Your task to perform on an android device: delete browsing data in the chrome app Image 0: 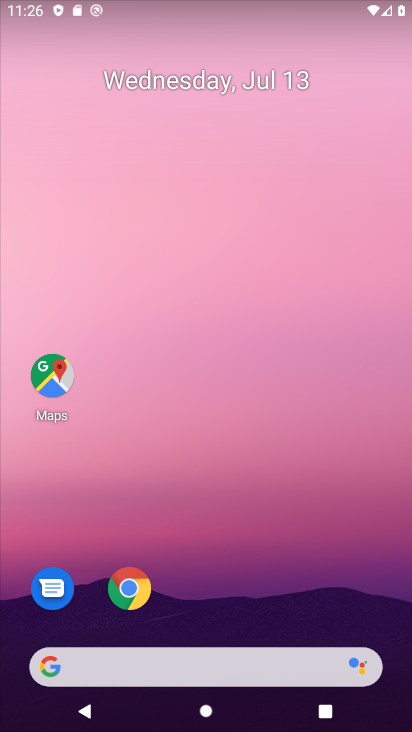
Step 0: drag from (220, 616) to (272, 65)
Your task to perform on an android device: delete browsing data in the chrome app Image 1: 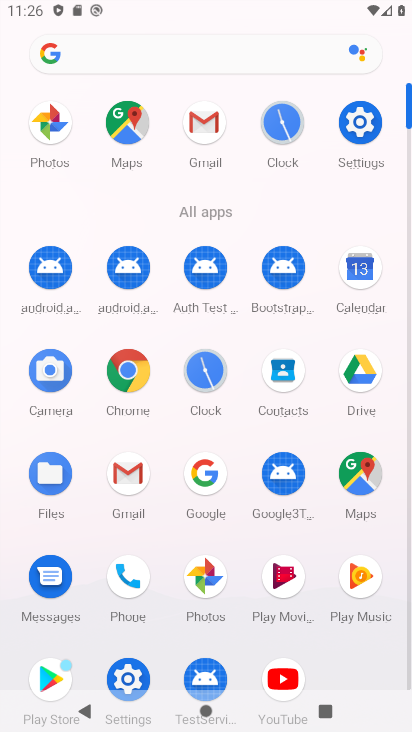
Step 1: click (134, 367)
Your task to perform on an android device: delete browsing data in the chrome app Image 2: 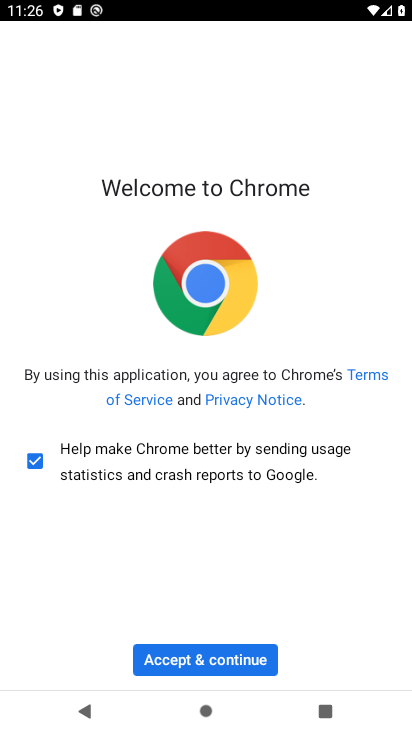
Step 2: click (247, 666)
Your task to perform on an android device: delete browsing data in the chrome app Image 3: 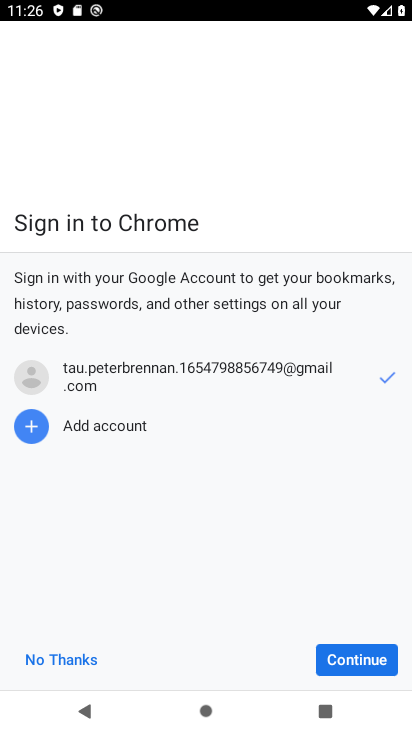
Step 3: click (347, 665)
Your task to perform on an android device: delete browsing data in the chrome app Image 4: 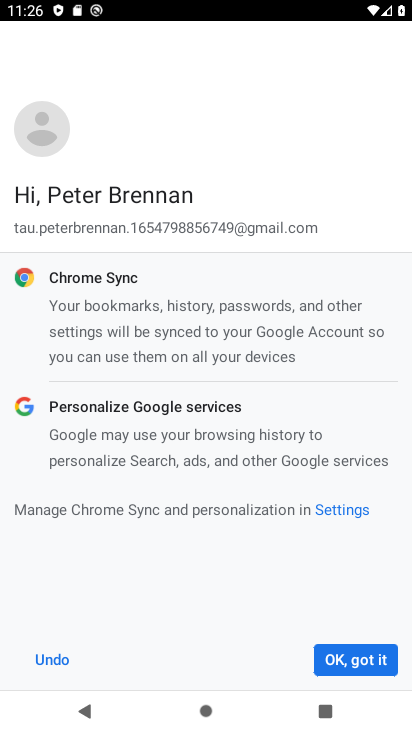
Step 4: click (366, 669)
Your task to perform on an android device: delete browsing data in the chrome app Image 5: 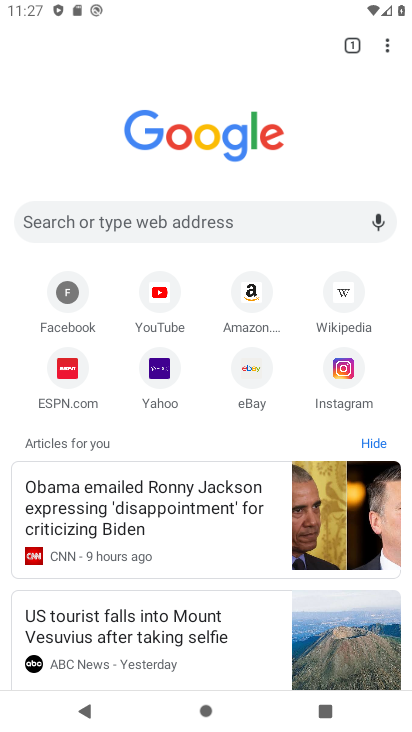
Step 5: click (384, 43)
Your task to perform on an android device: delete browsing data in the chrome app Image 6: 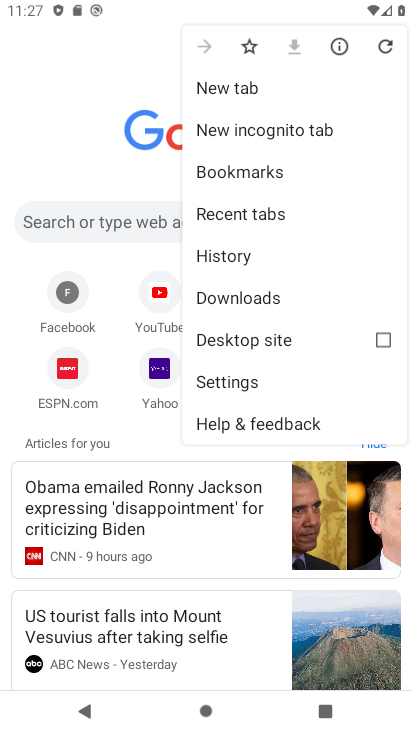
Step 6: click (259, 249)
Your task to perform on an android device: delete browsing data in the chrome app Image 7: 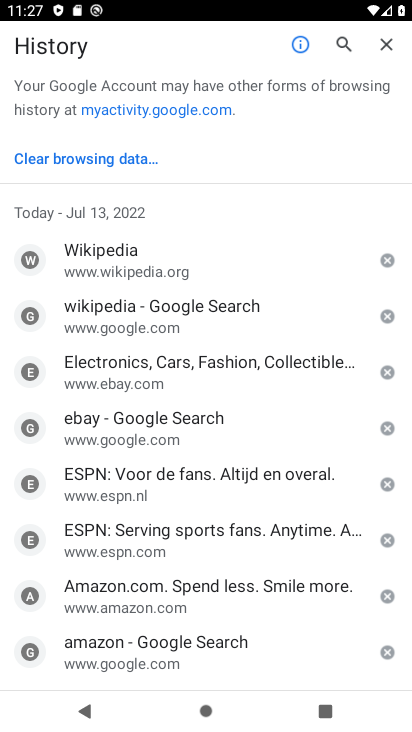
Step 7: click (91, 153)
Your task to perform on an android device: delete browsing data in the chrome app Image 8: 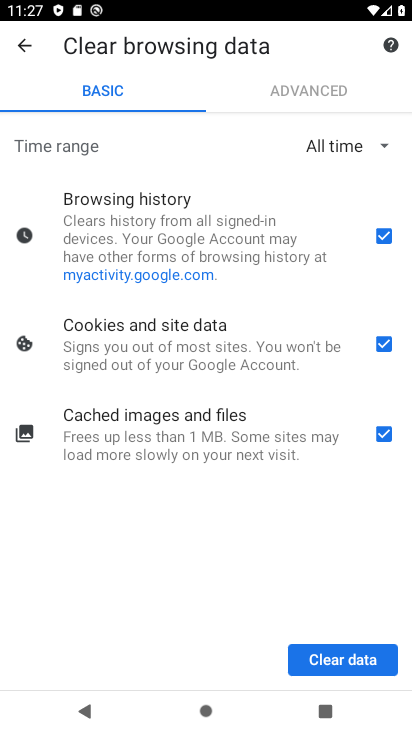
Step 8: click (334, 660)
Your task to perform on an android device: delete browsing data in the chrome app Image 9: 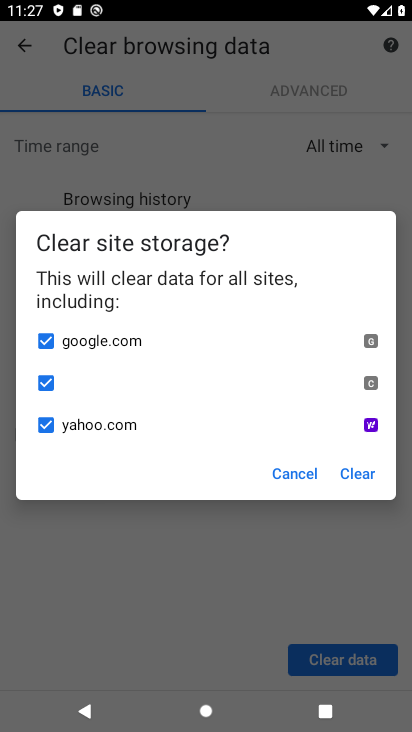
Step 9: click (351, 475)
Your task to perform on an android device: delete browsing data in the chrome app Image 10: 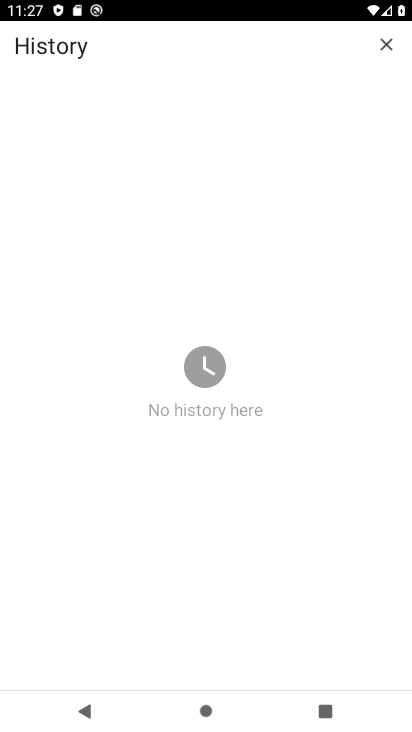
Step 10: task complete